Your task to perform on an android device: toggle priority inbox in the gmail app Image 0: 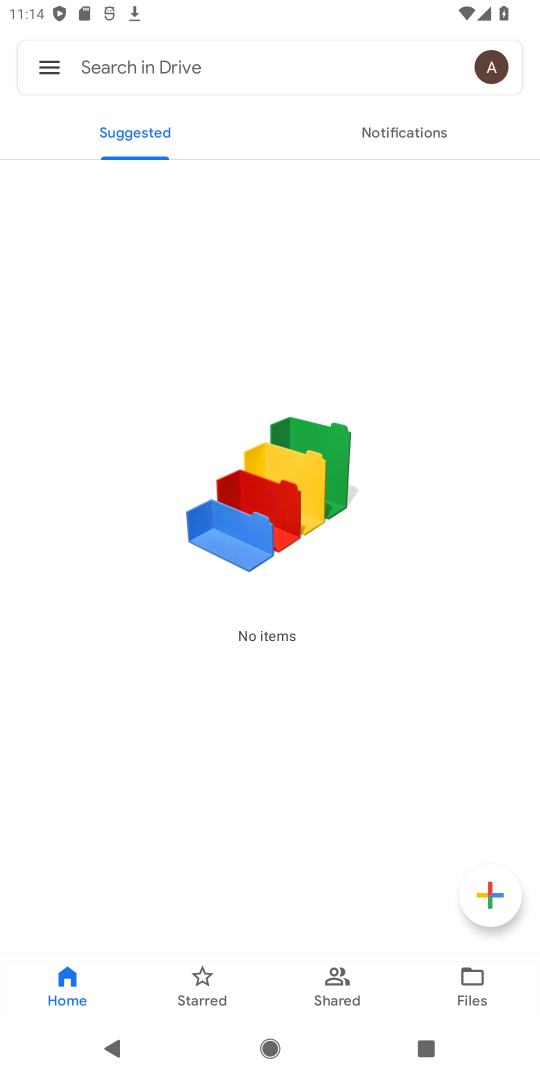
Step 0: press home button
Your task to perform on an android device: toggle priority inbox in the gmail app Image 1: 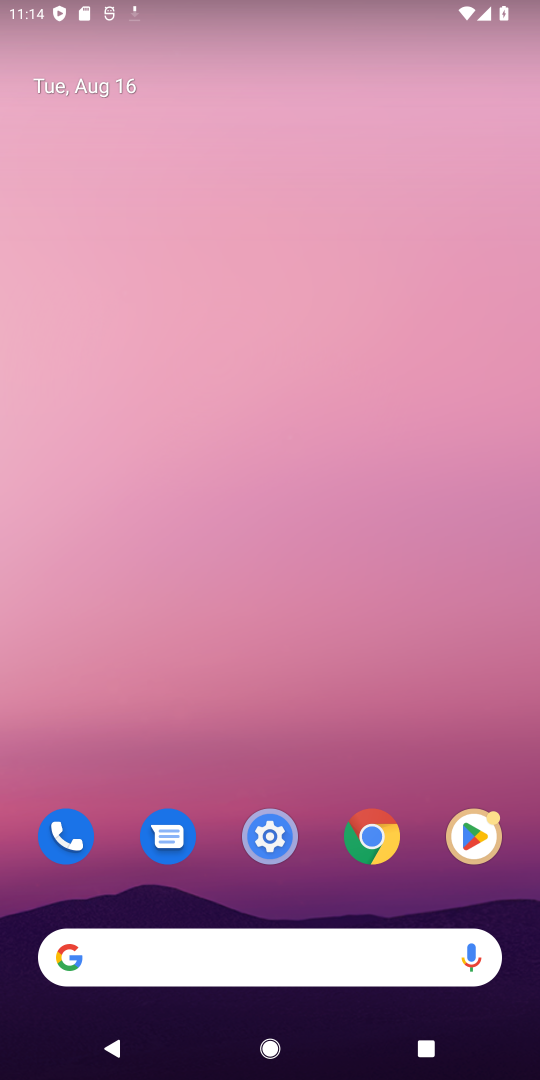
Step 1: drag from (196, 952) to (389, 336)
Your task to perform on an android device: toggle priority inbox in the gmail app Image 2: 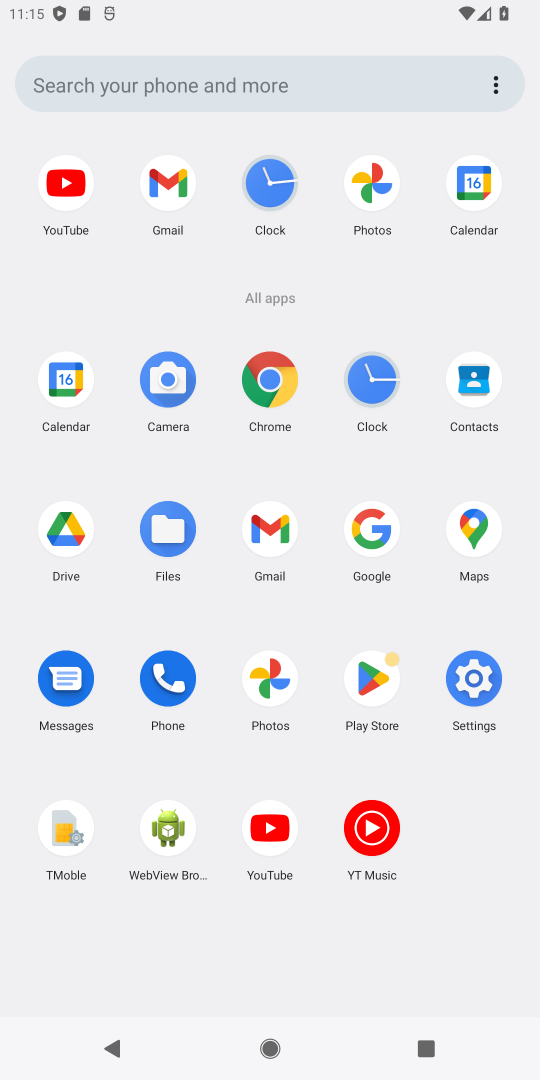
Step 2: click (166, 185)
Your task to perform on an android device: toggle priority inbox in the gmail app Image 3: 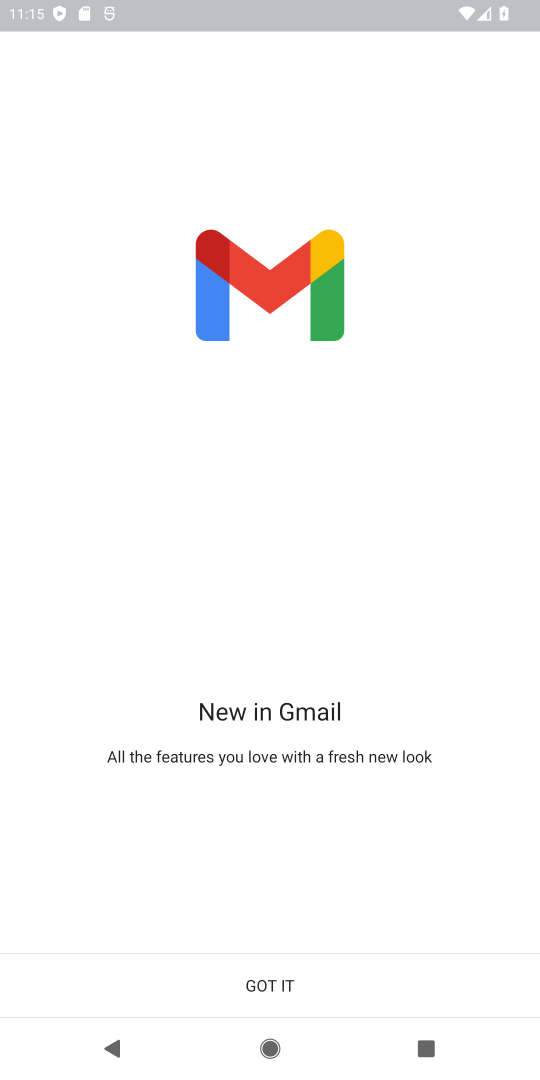
Step 3: click (268, 983)
Your task to perform on an android device: toggle priority inbox in the gmail app Image 4: 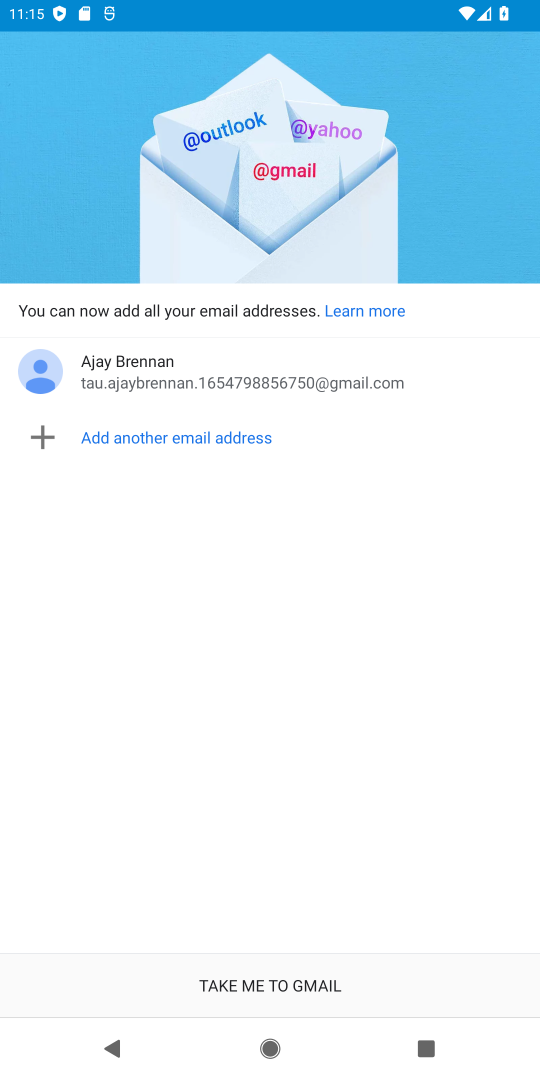
Step 4: click (253, 984)
Your task to perform on an android device: toggle priority inbox in the gmail app Image 5: 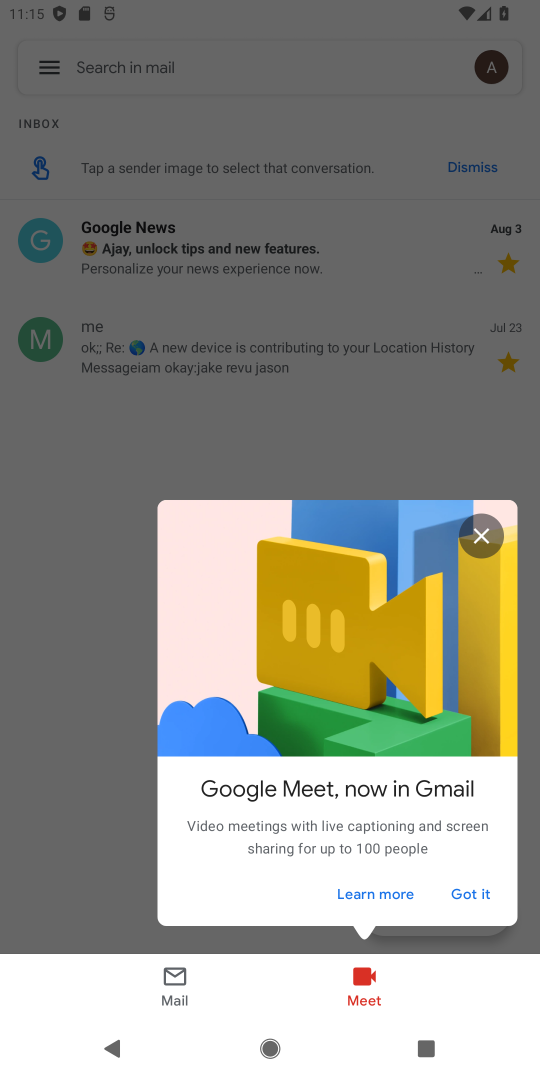
Step 5: click (54, 60)
Your task to perform on an android device: toggle priority inbox in the gmail app Image 6: 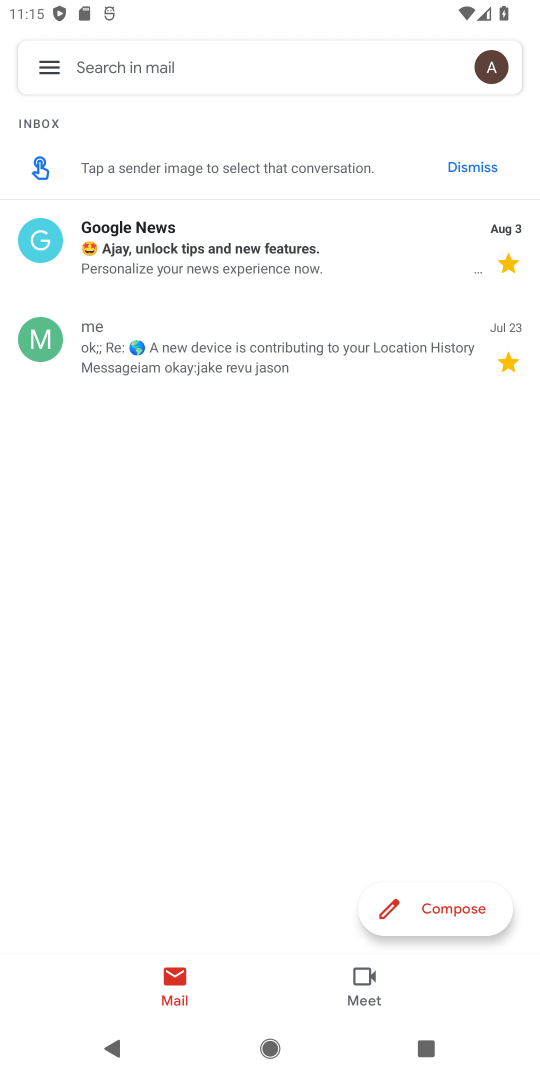
Step 6: click (48, 72)
Your task to perform on an android device: toggle priority inbox in the gmail app Image 7: 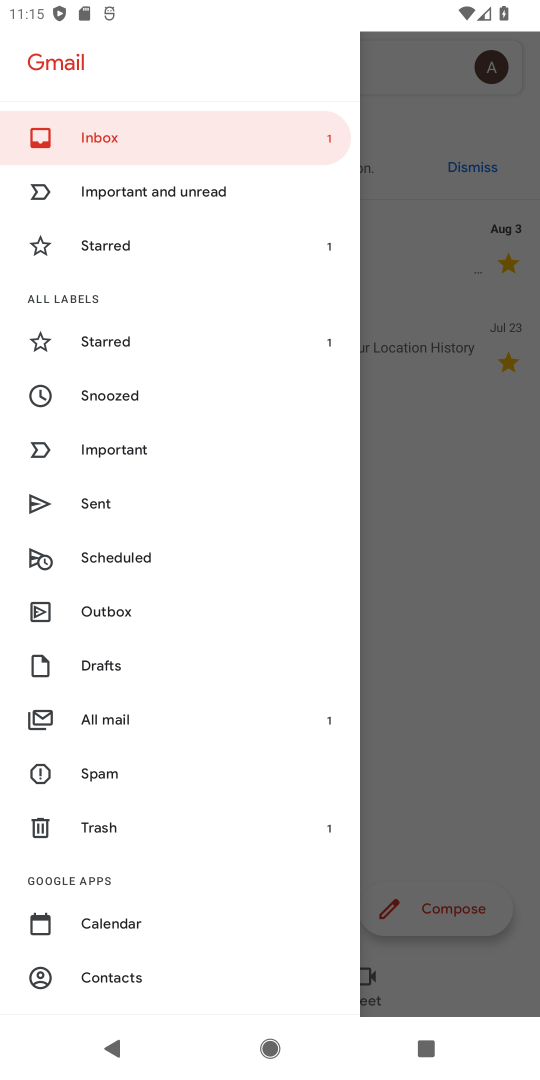
Step 7: drag from (113, 947) to (216, 738)
Your task to perform on an android device: toggle priority inbox in the gmail app Image 8: 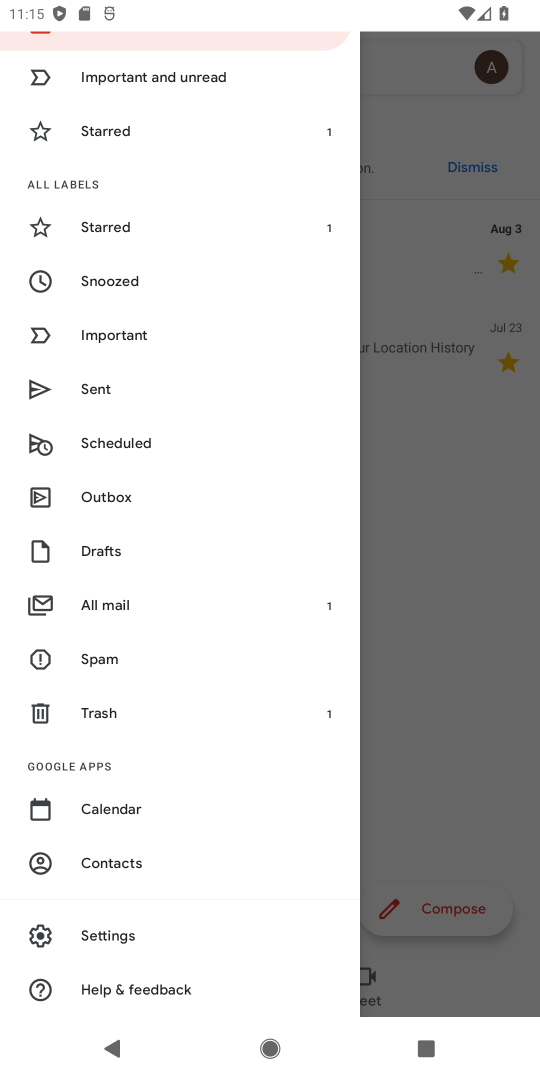
Step 8: click (127, 939)
Your task to perform on an android device: toggle priority inbox in the gmail app Image 9: 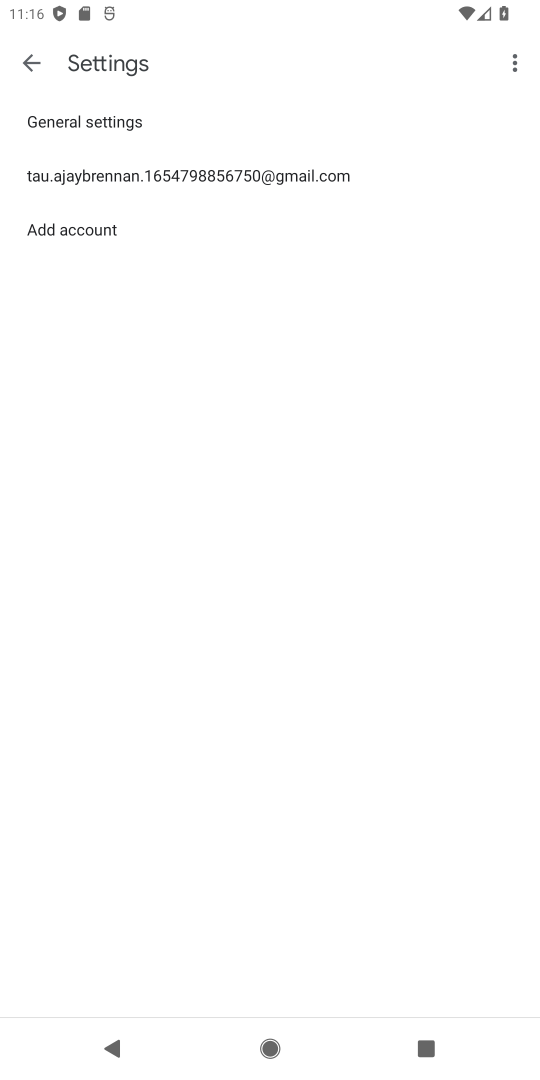
Step 9: click (281, 172)
Your task to perform on an android device: toggle priority inbox in the gmail app Image 10: 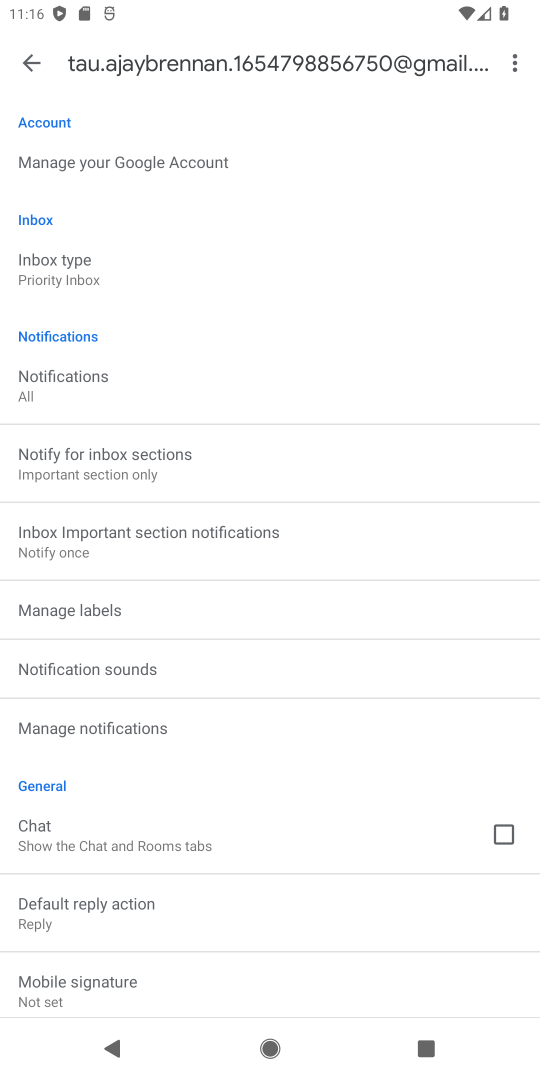
Step 10: click (64, 281)
Your task to perform on an android device: toggle priority inbox in the gmail app Image 11: 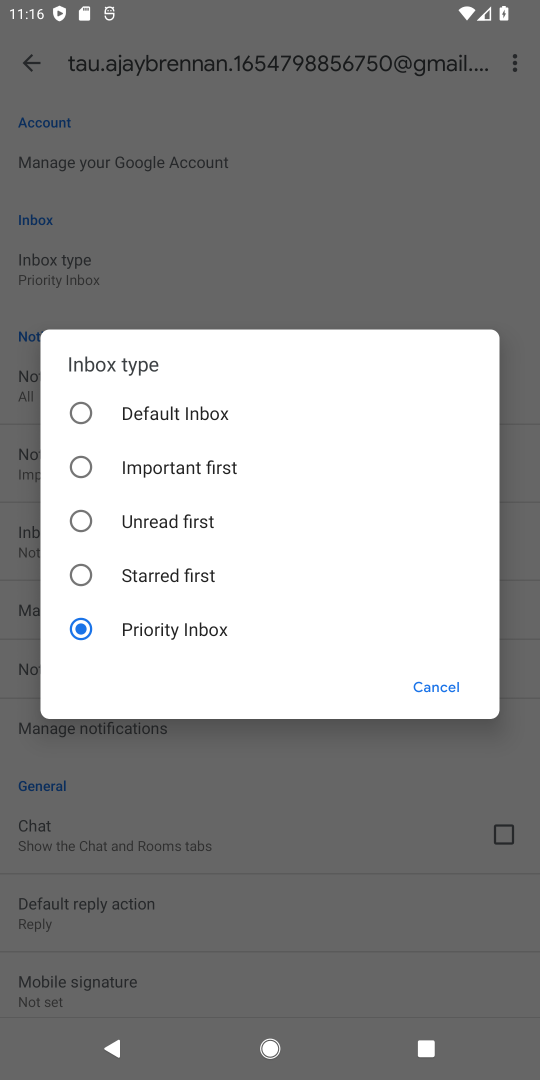
Step 11: click (91, 466)
Your task to perform on an android device: toggle priority inbox in the gmail app Image 12: 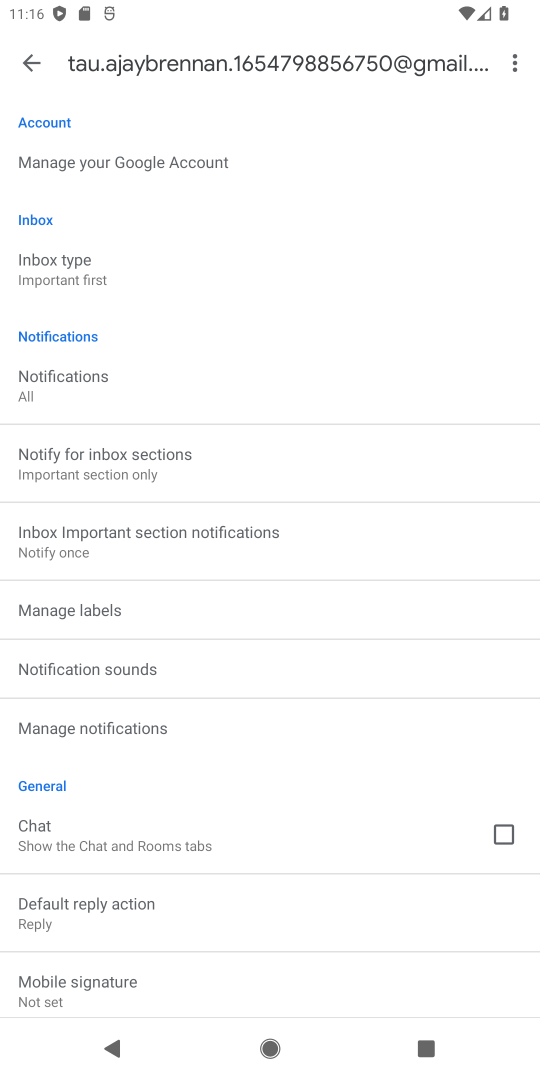
Step 12: task complete